Your task to perform on an android device: move a message to another label in the gmail app Image 0: 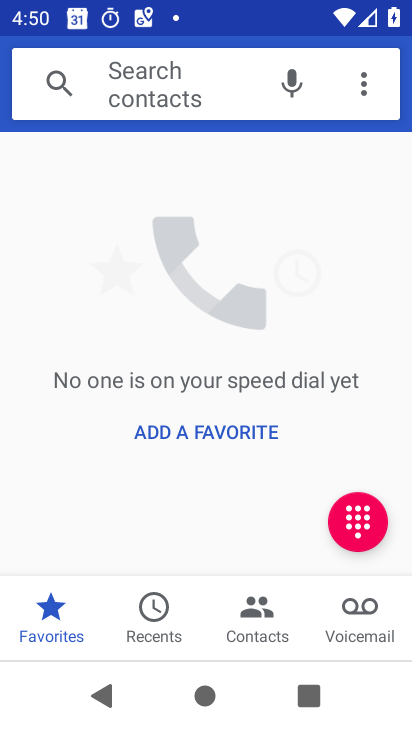
Step 0: press back button
Your task to perform on an android device: move a message to another label in the gmail app Image 1: 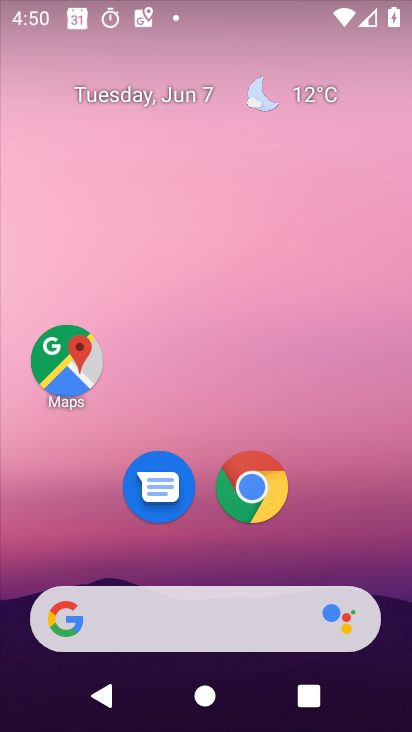
Step 1: drag from (136, 507) to (213, 8)
Your task to perform on an android device: move a message to another label in the gmail app Image 2: 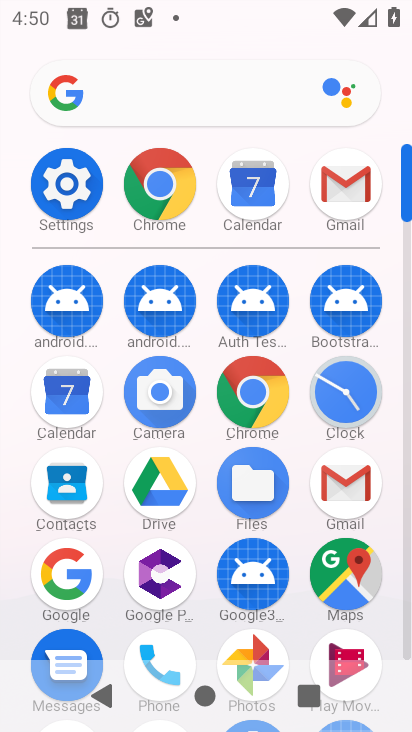
Step 2: click (330, 173)
Your task to perform on an android device: move a message to another label in the gmail app Image 3: 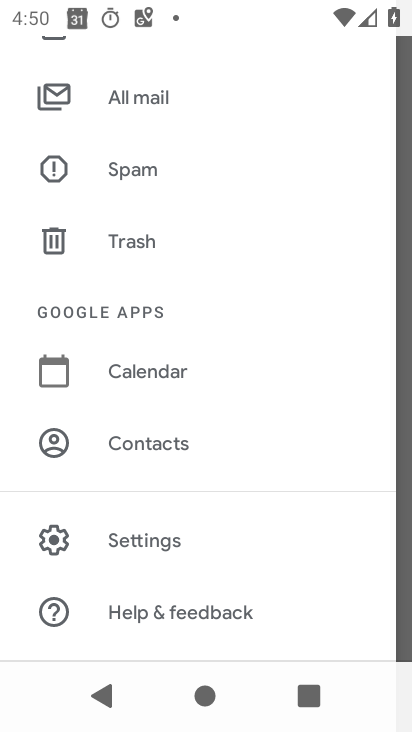
Step 3: click (167, 92)
Your task to perform on an android device: move a message to another label in the gmail app Image 4: 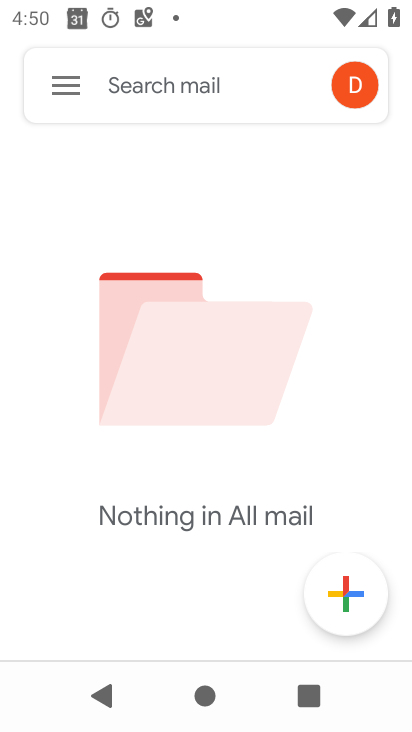
Step 4: task complete